Your task to perform on an android device: remove spam from my inbox in the gmail app Image 0: 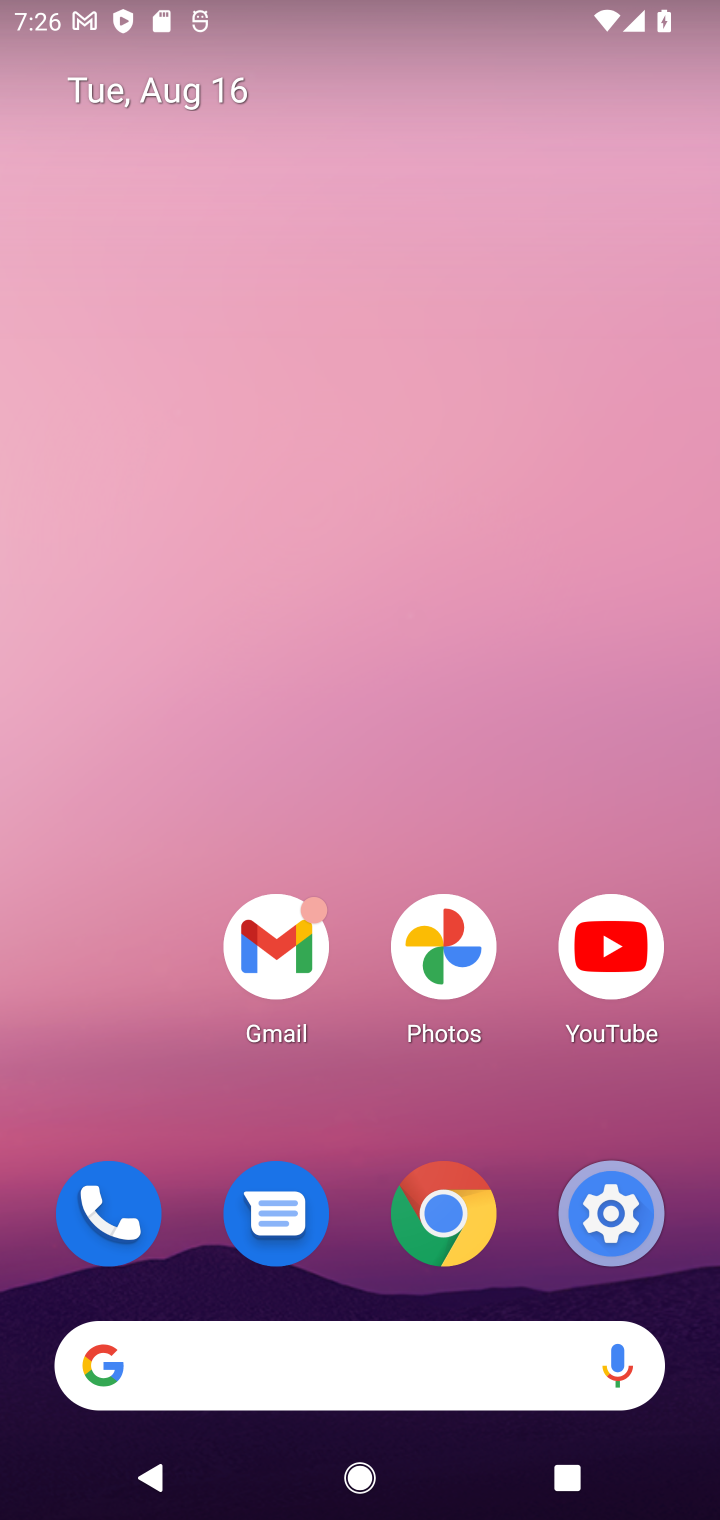
Step 0: click (269, 984)
Your task to perform on an android device: remove spam from my inbox in the gmail app Image 1: 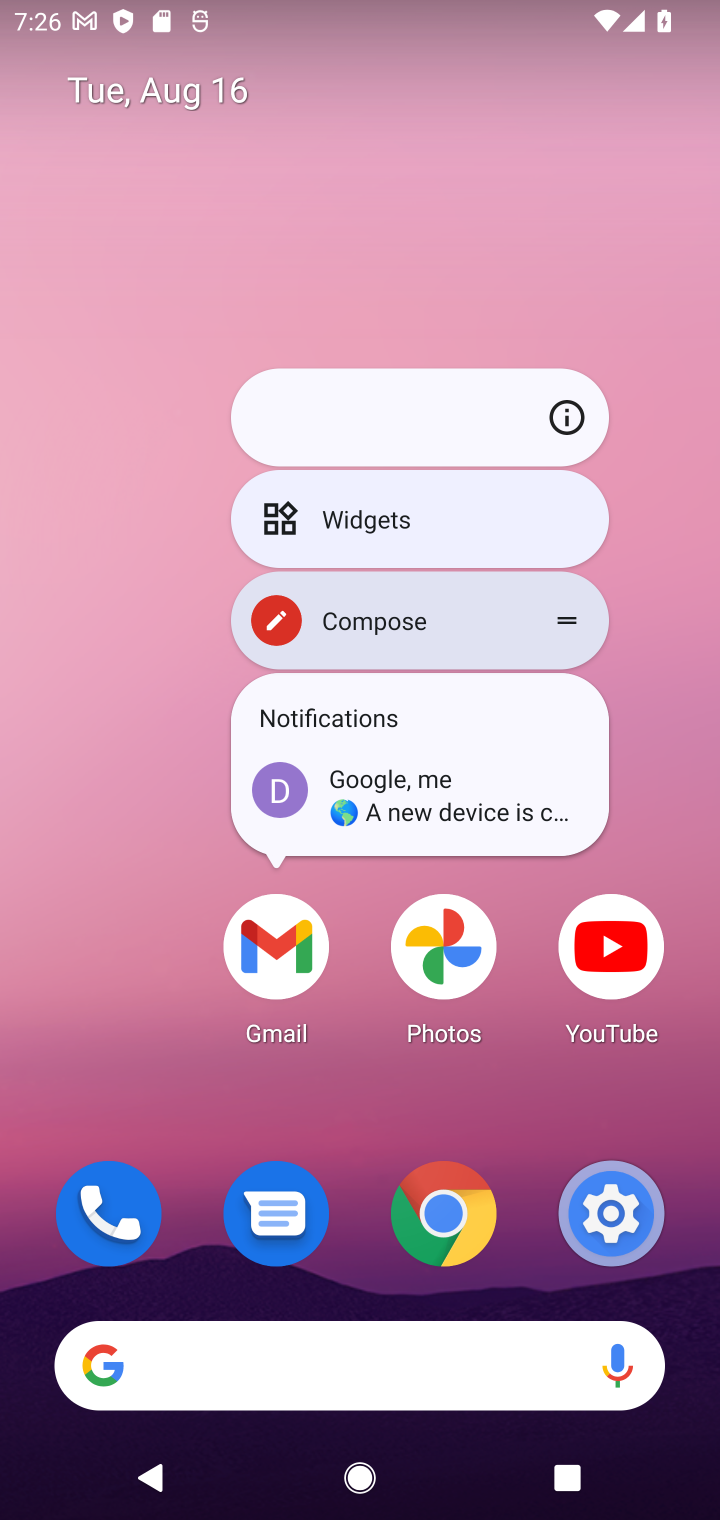
Step 1: click (269, 984)
Your task to perform on an android device: remove spam from my inbox in the gmail app Image 2: 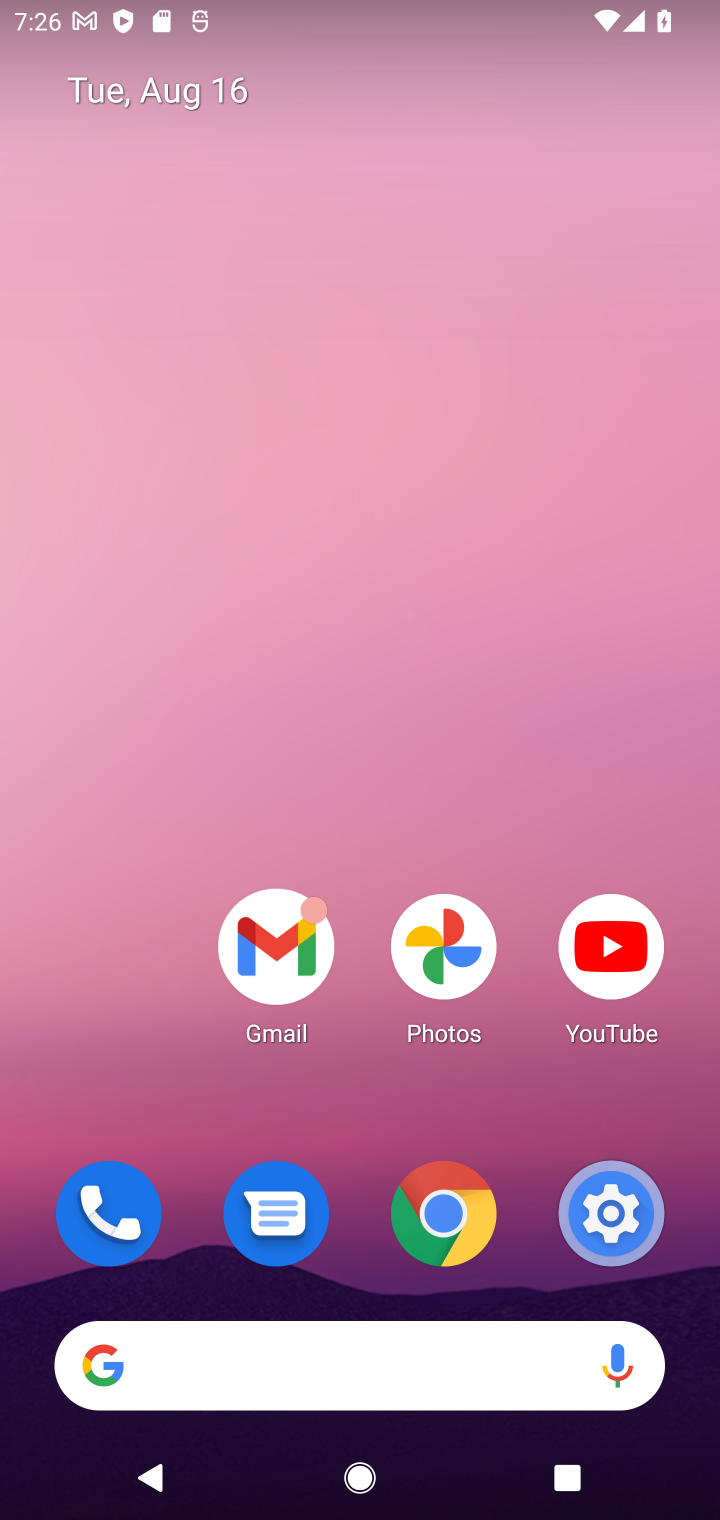
Step 2: click (269, 984)
Your task to perform on an android device: remove spam from my inbox in the gmail app Image 3: 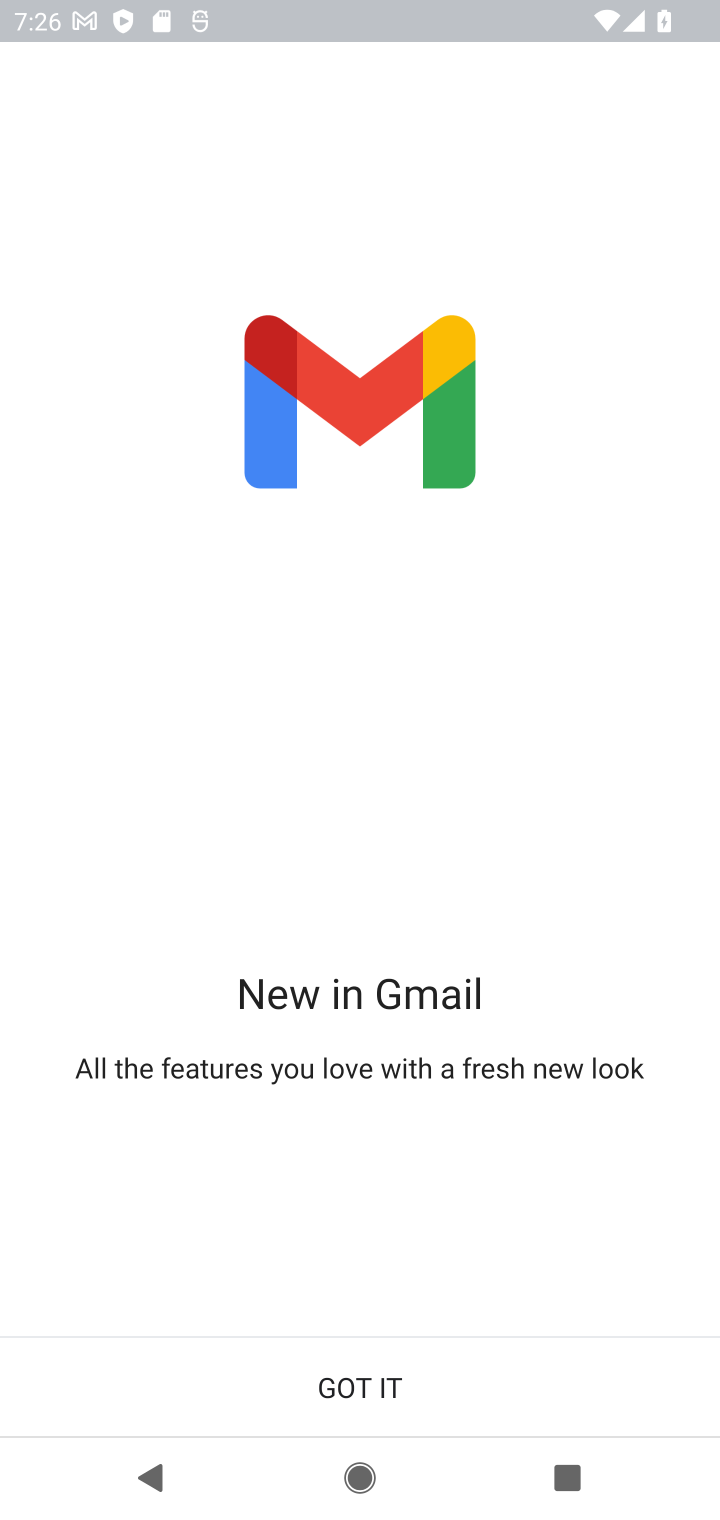
Step 3: click (361, 1371)
Your task to perform on an android device: remove spam from my inbox in the gmail app Image 4: 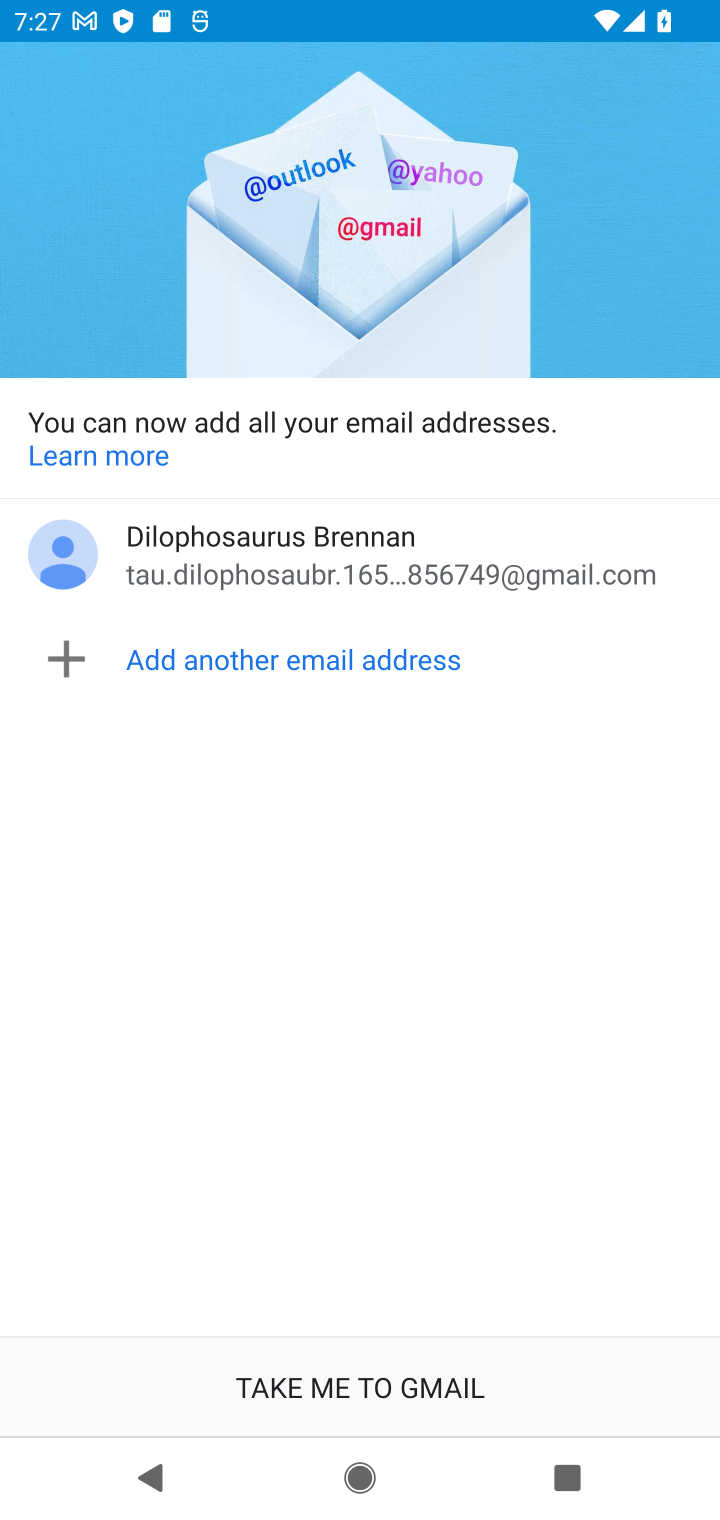
Step 4: click (361, 1371)
Your task to perform on an android device: remove spam from my inbox in the gmail app Image 5: 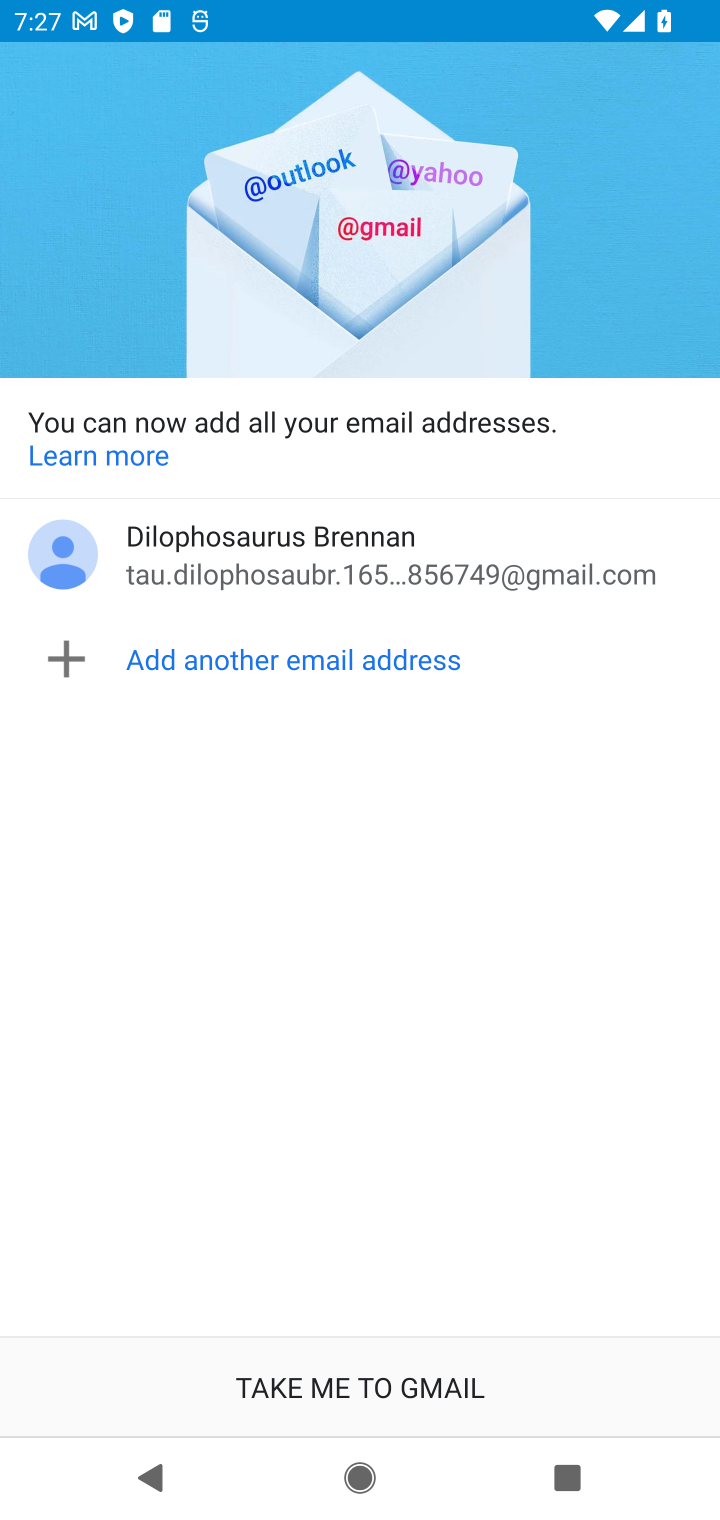
Step 5: click (361, 1371)
Your task to perform on an android device: remove spam from my inbox in the gmail app Image 6: 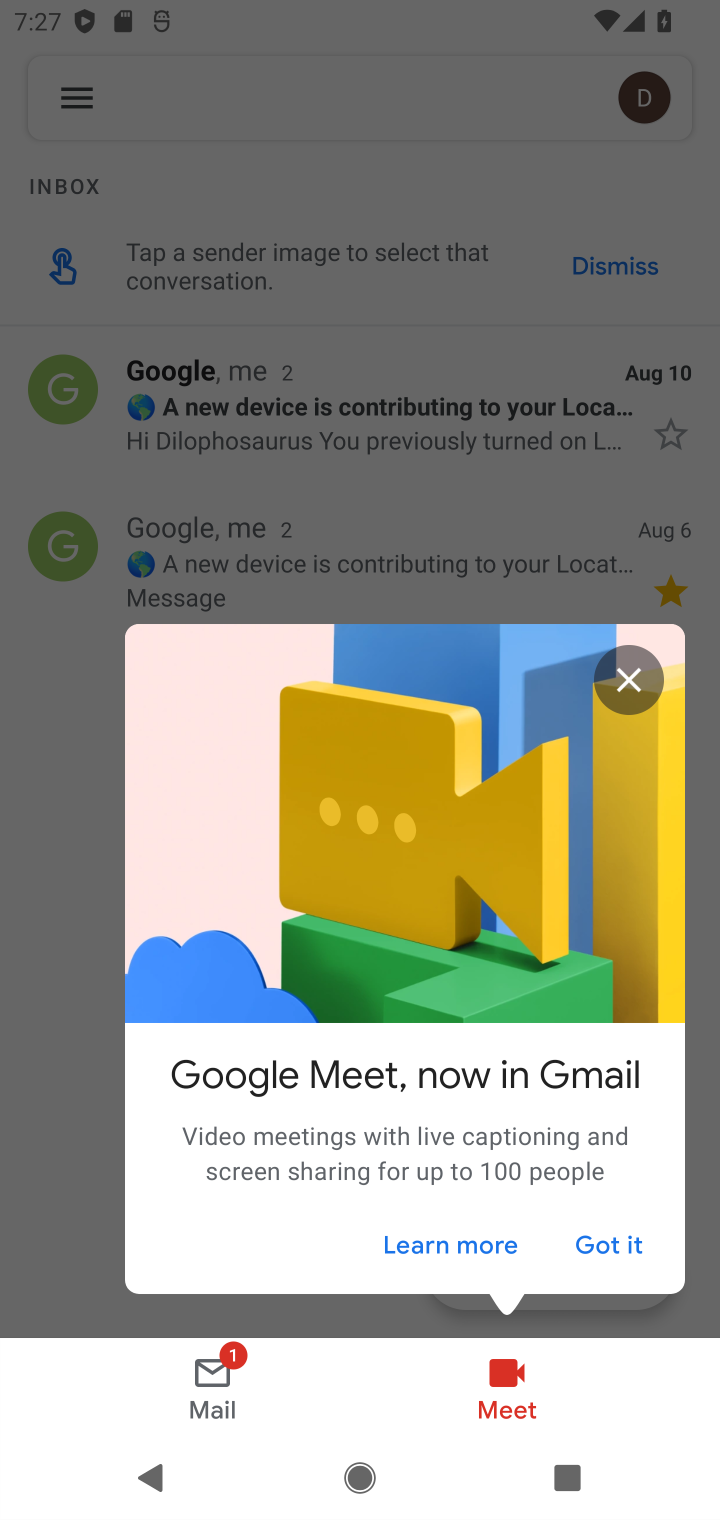
Step 6: click (603, 704)
Your task to perform on an android device: remove spam from my inbox in the gmail app Image 7: 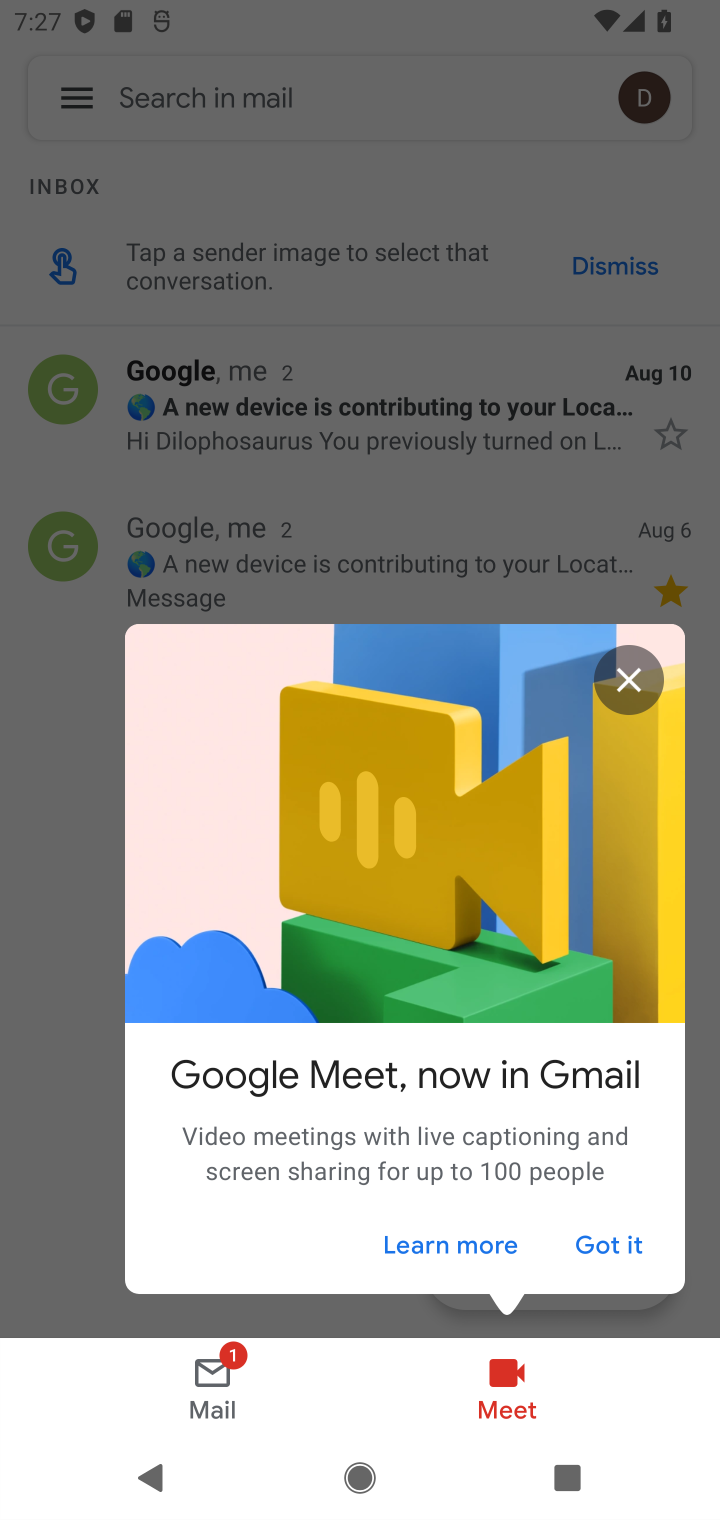
Step 7: click (603, 704)
Your task to perform on an android device: remove spam from my inbox in the gmail app Image 8: 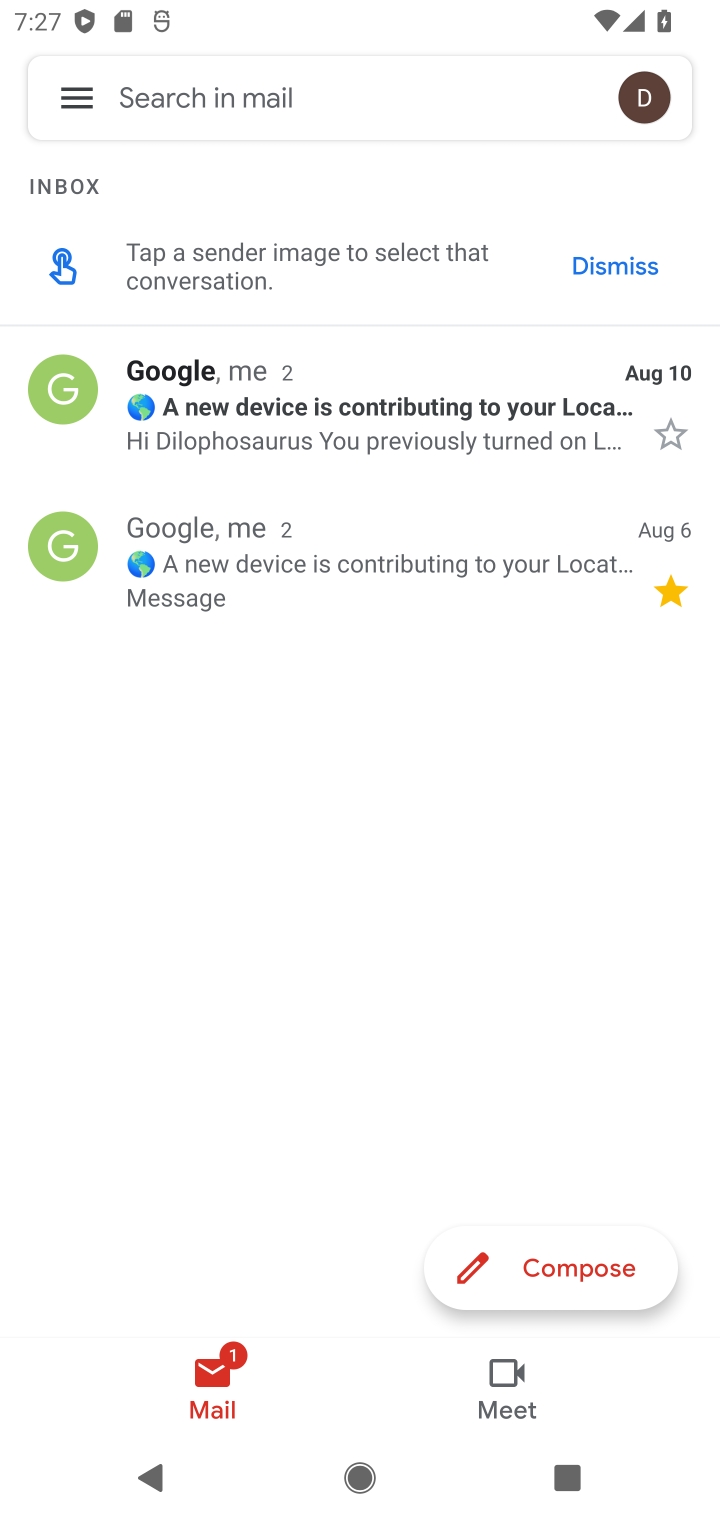
Step 8: task complete